Your task to perform on an android device: Go to location settings Image 0: 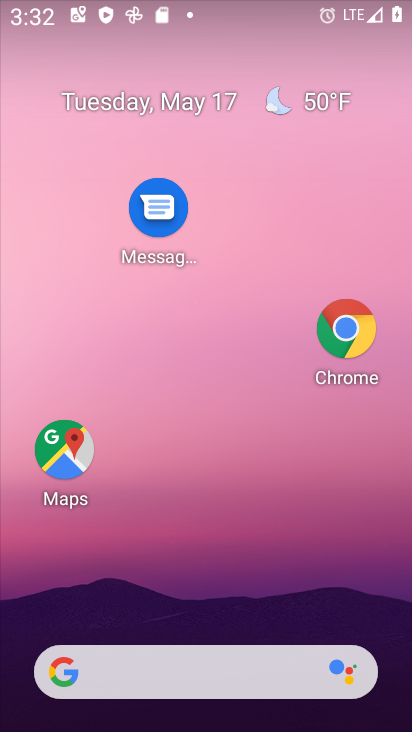
Step 0: drag from (310, 526) to (344, 2)
Your task to perform on an android device: Go to location settings Image 1: 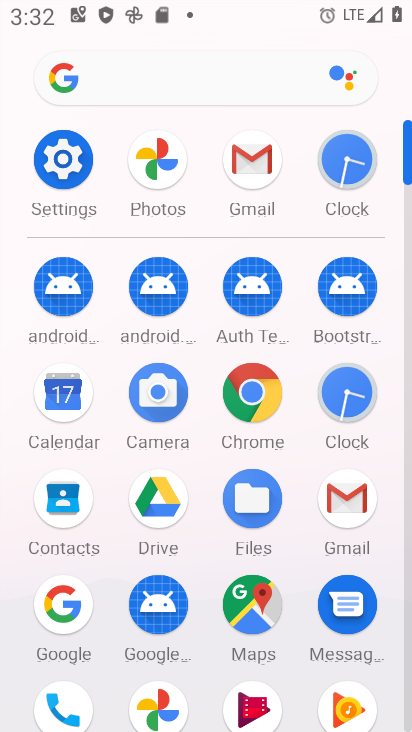
Step 1: click (54, 180)
Your task to perform on an android device: Go to location settings Image 2: 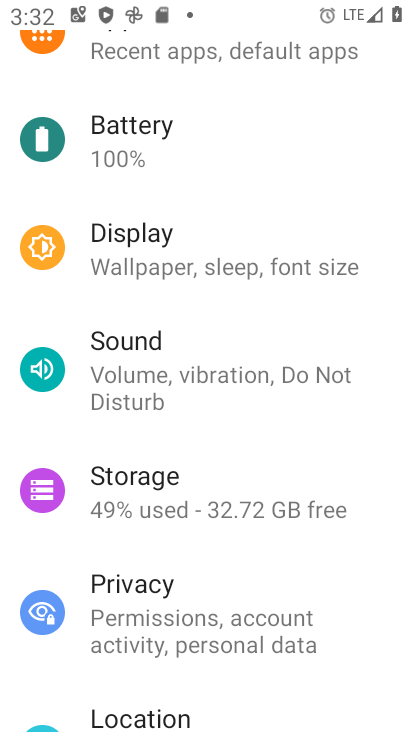
Step 2: click (151, 711)
Your task to perform on an android device: Go to location settings Image 3: 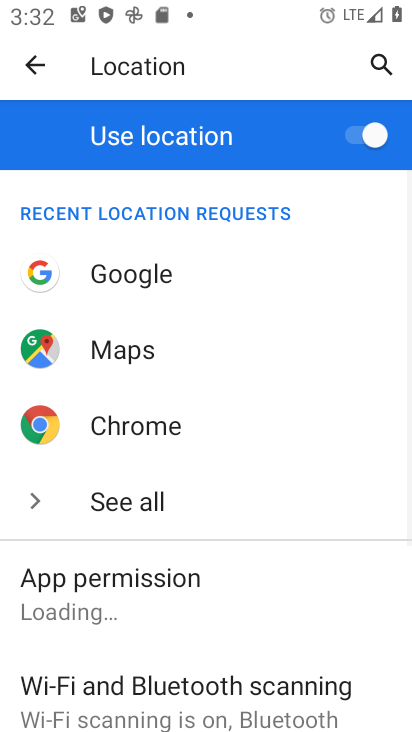
Step 3: task complete